Your task to perform on an android device: Do I have any events today? Image 0: 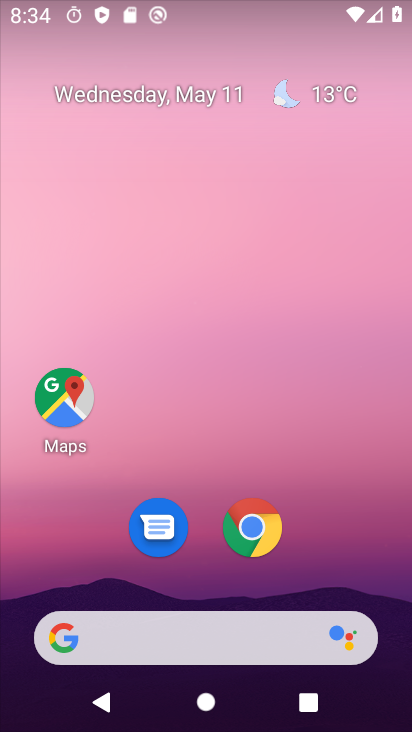
Step 0: drag from (206, 573) to (173, 70)
Your task to perform on an android device: Do I have any events today? Image 1: 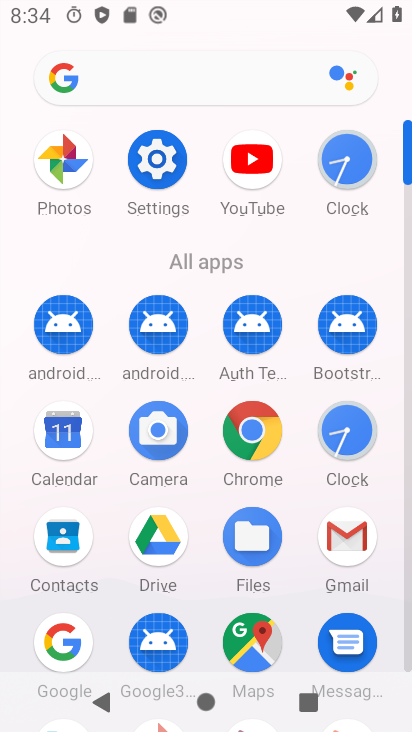
Step 1: click (59, 433)
Your task to perform on an android device: Do I have any events today? Image 2: 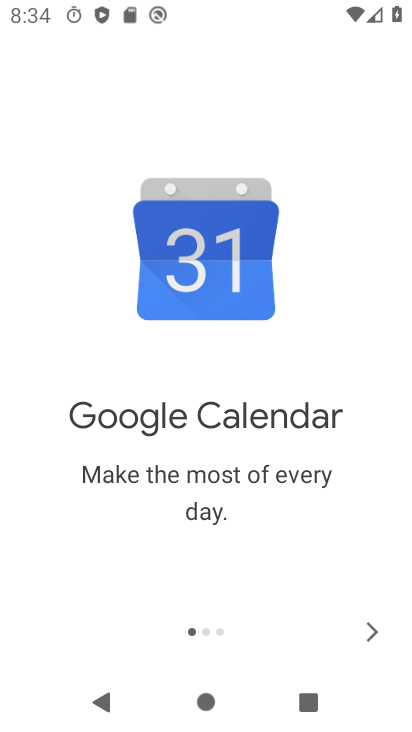
Step 2: click (361, 632)
Your task to perform on an android device: Do I have any events today? Image 3: 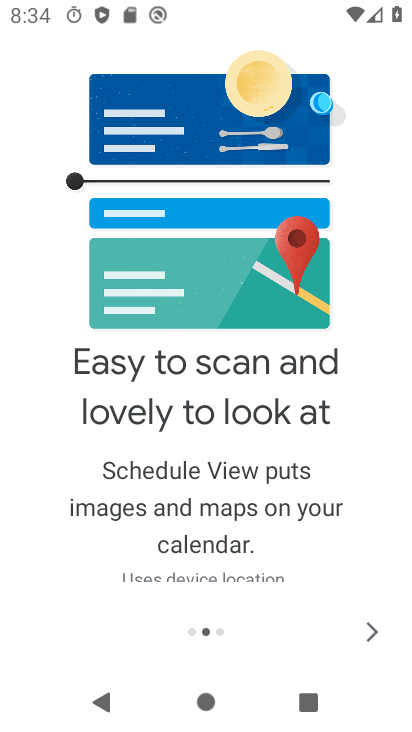
Step 3: click (362, 633)
Your task to perform on an android device: Do I have any events today? Image 4: 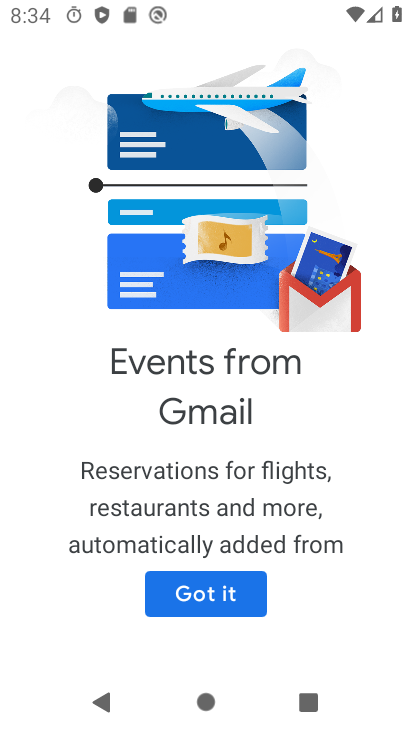
Step 4: click (191, 620)
Your task to perform on an android device: Do I have any events today? Image 5: 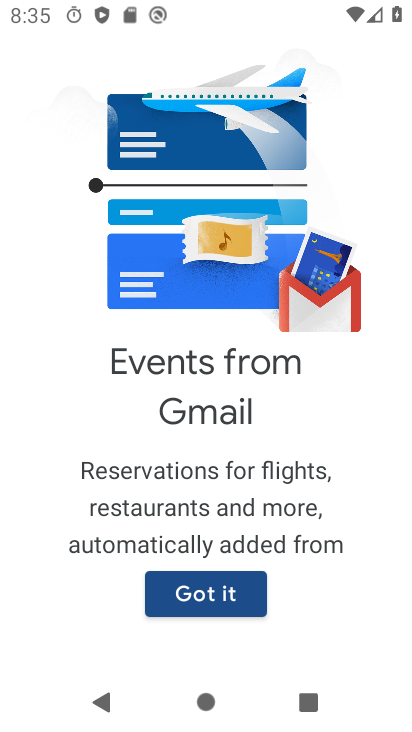
Step 5: click (191, 608)
Your task to perform on an android device: Do I have any events today? Image 6: 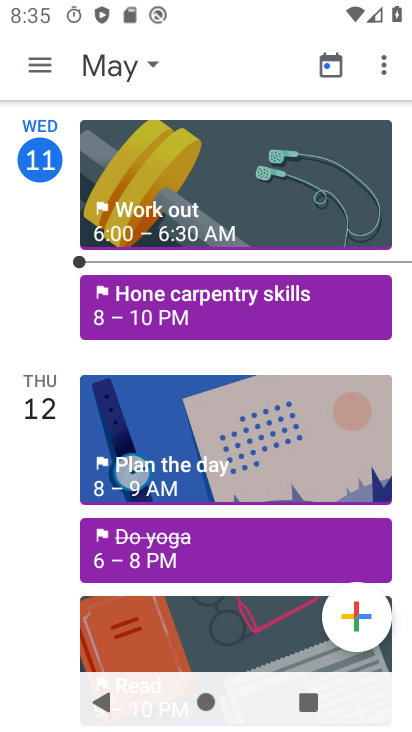
Step 6: click (142, 68)
Your task to perform on an android device: Do I have any events today? Image 7: 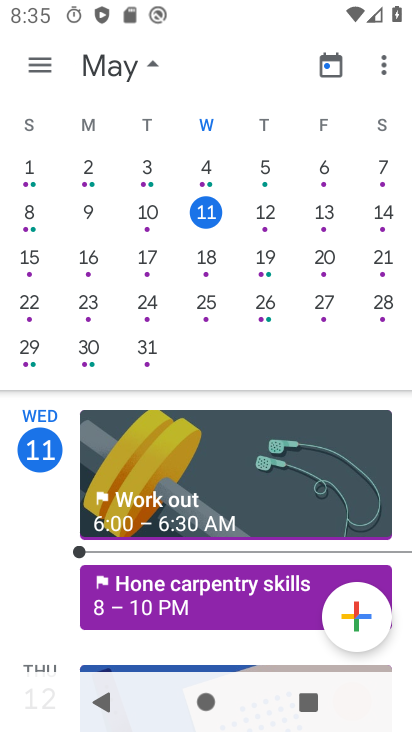
Step 7: click (212, 219)
Your task to perform on an android device: Do I have any events today? Image 8: 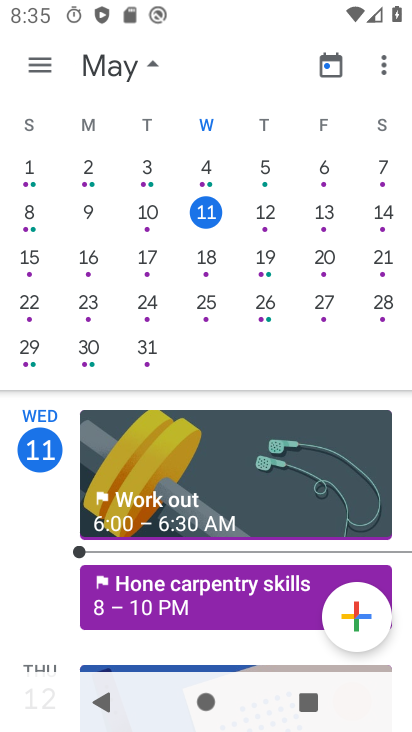
Step 8: click (206, 211)
Your task to perform on an android device: Do I have any events today? Image 9: 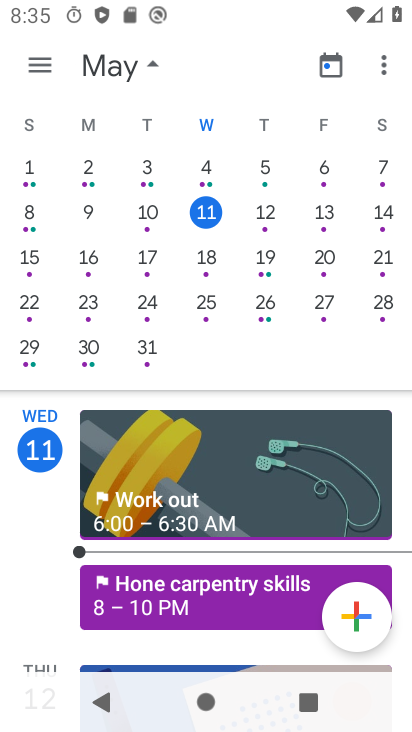
Step 9: task complete